Your task to perform on an android device: Go to CNN.com Image 0: 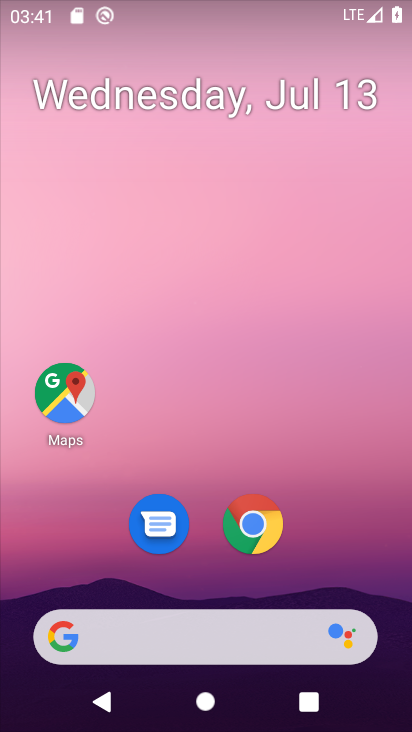
Step 0: drag from (350, 515) to (293, 114)
Your task to perform on an android device: Go to CNN.com Image 1: 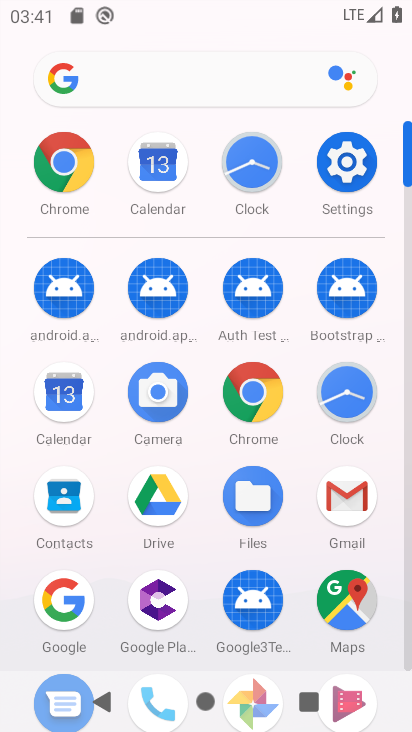
Step 1: click (211, 87)
Your task to perform on an android device: Go to CNN.com Image 2: 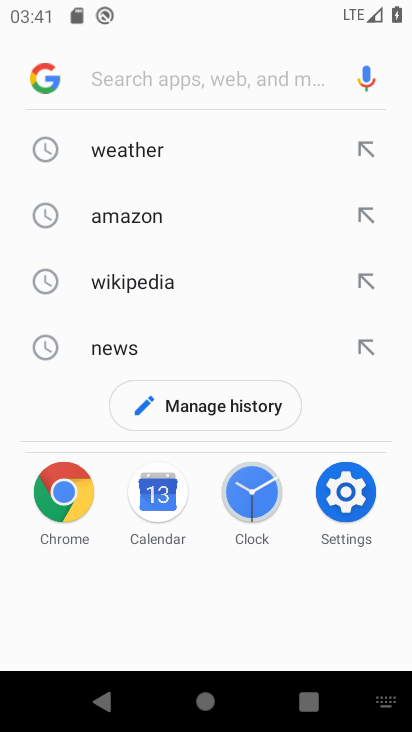
Step 2: type "cnn.com"
Your task to perform on an android device: Go to CNN.com Image 3: 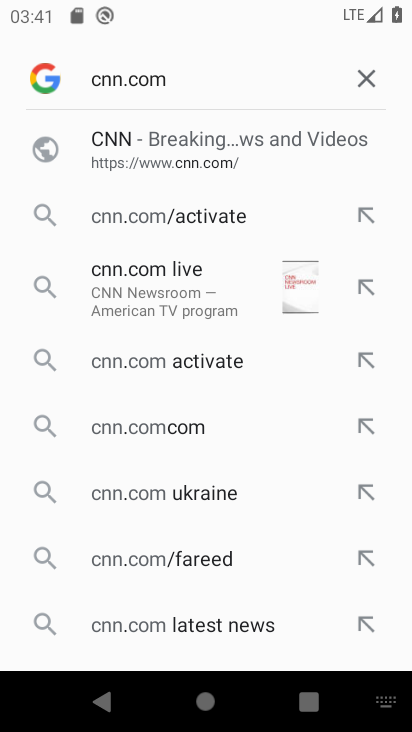
Step 3: click (140, 156)
Your task to perform on an android device: Go to CNN.com Image 4: 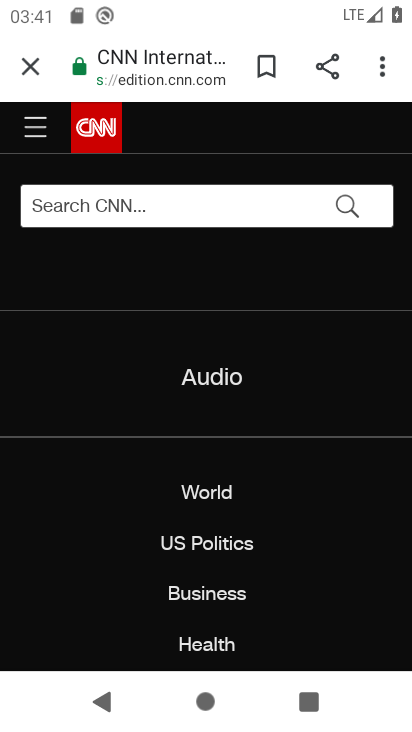
Step 4: task complete